Your task to perform on an android device: set the timer Image 0: 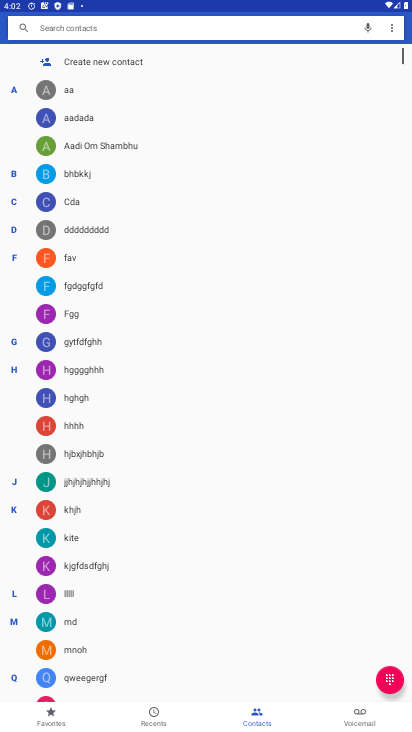
Step 0: press home button
Your task to perform on an android device: set the timer Image 1: 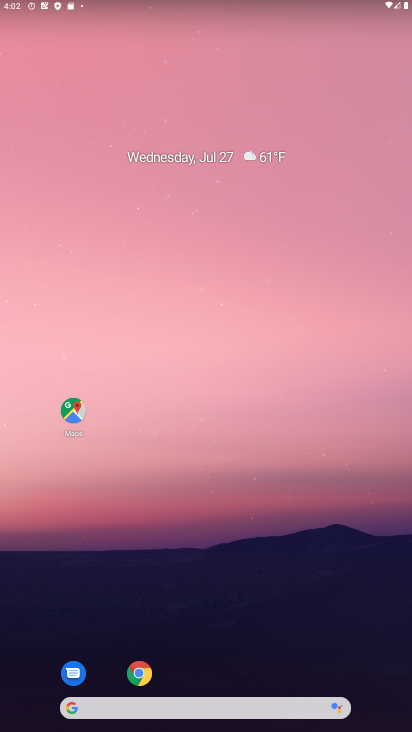
Step 1: drag from (11, 678) to (245, 10)
Your task to perform on an android device: set the timer Image 2: 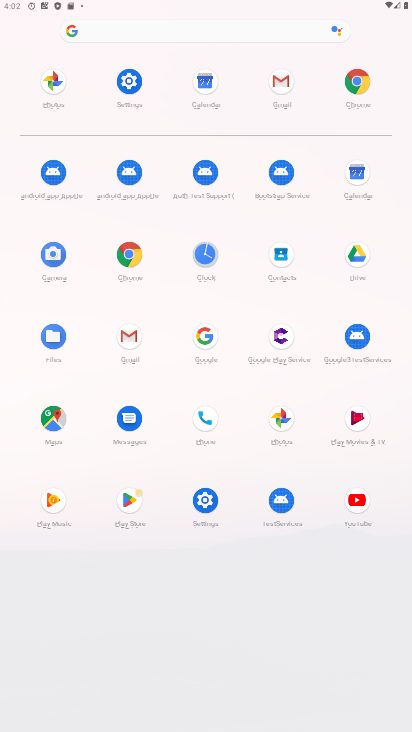
Step 2: click (213, 250)
Your task to perform on an android device: set the timer Image 3: 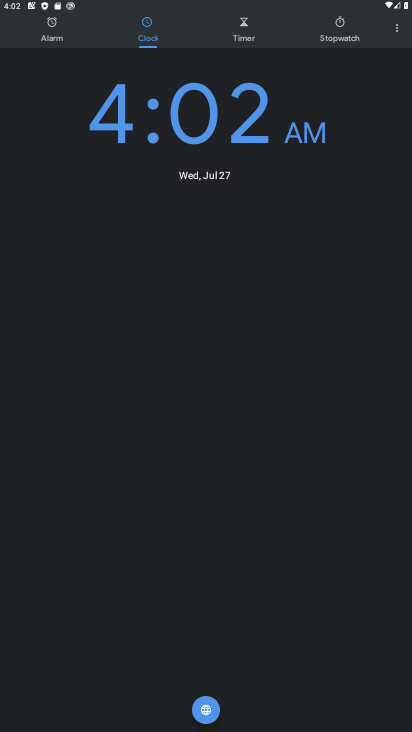
Step 3: click (256, 33)
Your task to perform on an android device: set the timer Image 4: 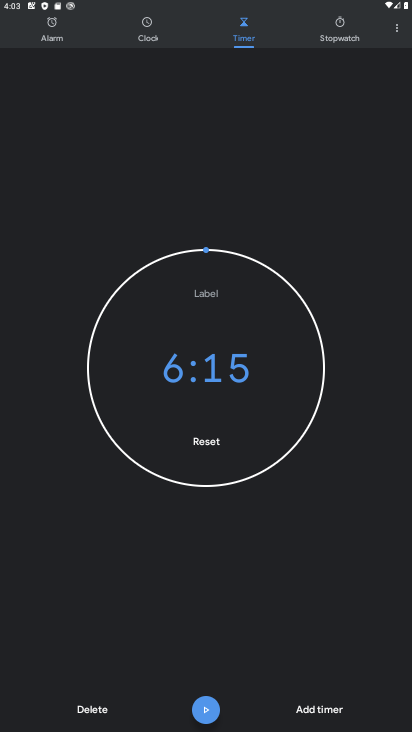
Step 4: click (202, 363)
Your task to perform on an android device: set the timer Image 5: 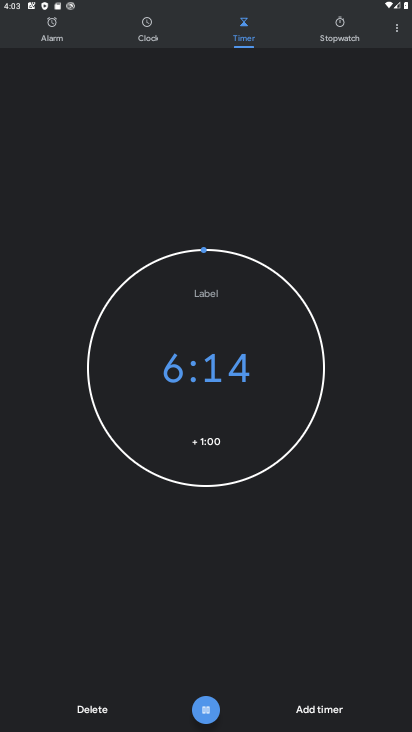
Step 5: click (221, 384)
Your task to perform on an android device: set the timer Image 6: 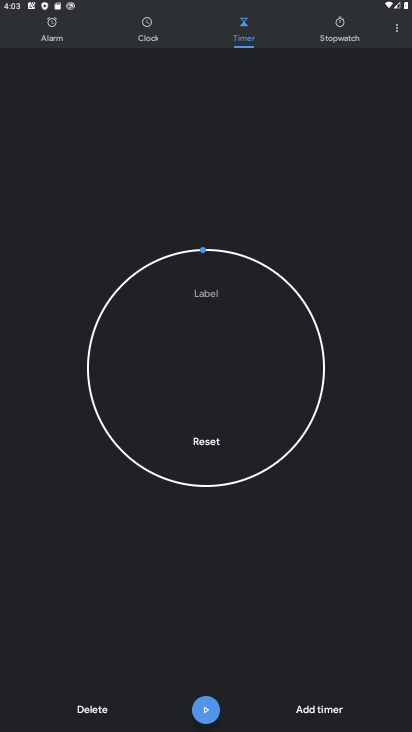
Step 6: task complete